Your task to perform on an android device: open chrome privacy settings Image 0: 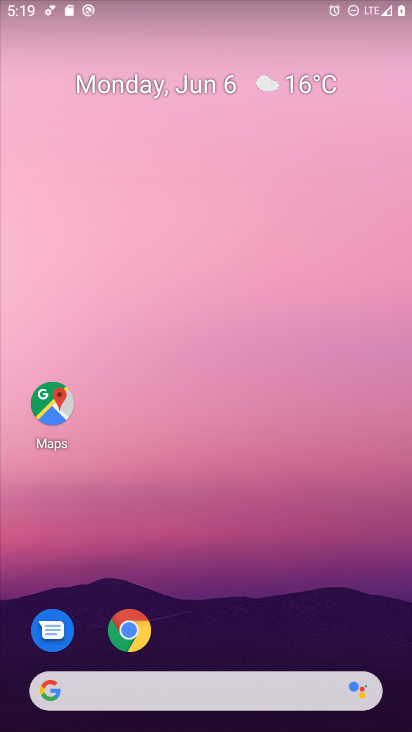
Step 0: drag from (361, 625) to (203, 177)
Your task to perform on an android device: open chrome privacy settings Image 1: 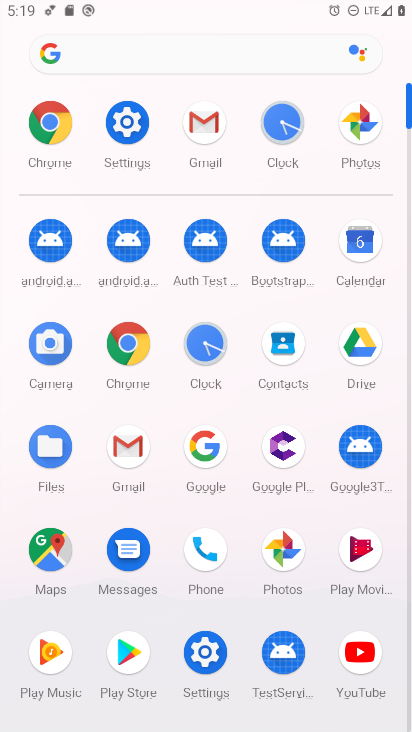
Step 1: click (112, 312)
Your task to perform on an android device: open chrome privacy settings Image 2: 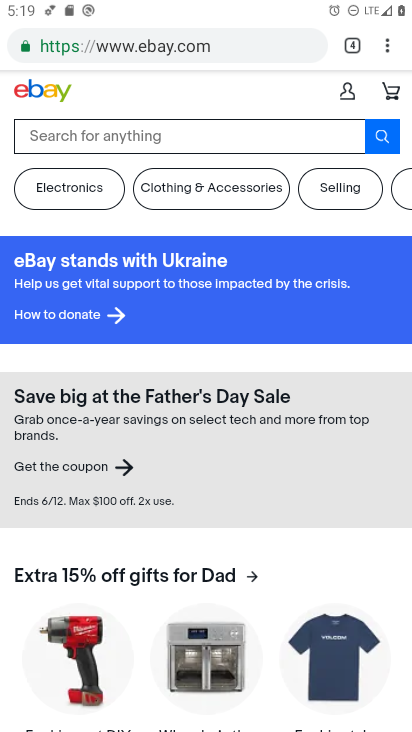
Step 2: click (394, 44)
Your task to perform on an android device: open chrome privacy settings Image 3: 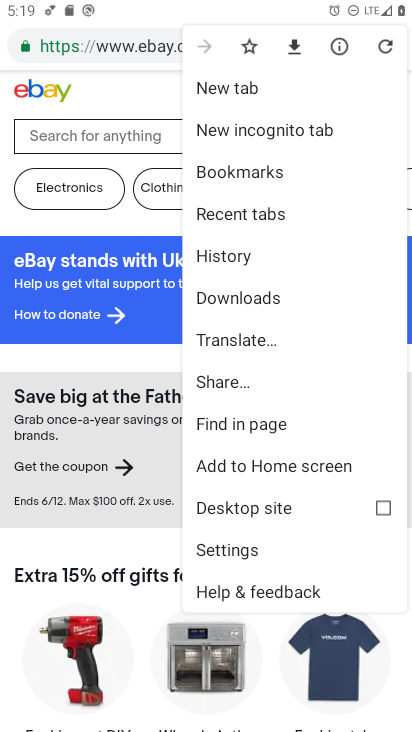
Step 3: click (259, 563)
Your task to perform on an android device: open chrome privacy settings Image 4: 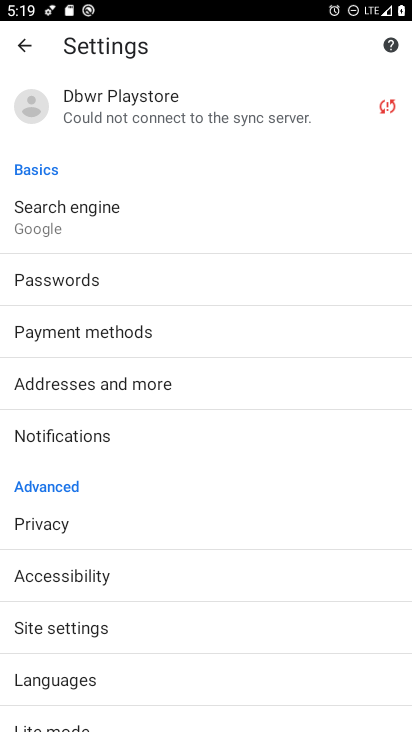
Step 4: click (166, 533)
Your task to perform on an android device: open chrome privacy settings Image 5: 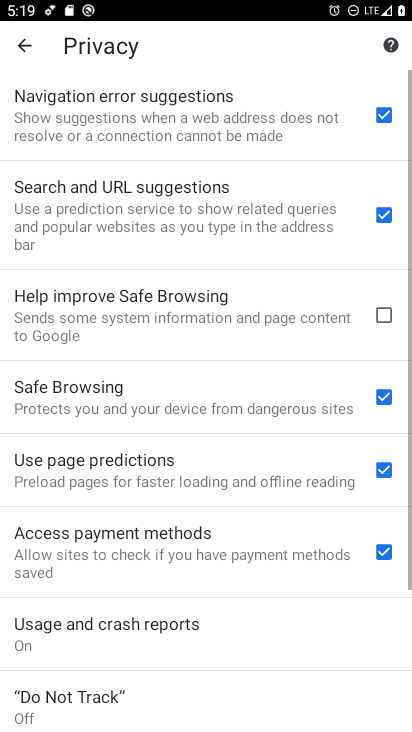
Step 5: task complete